Your task to perform on an android device: find snoozed emails in the gmail app Image 0: 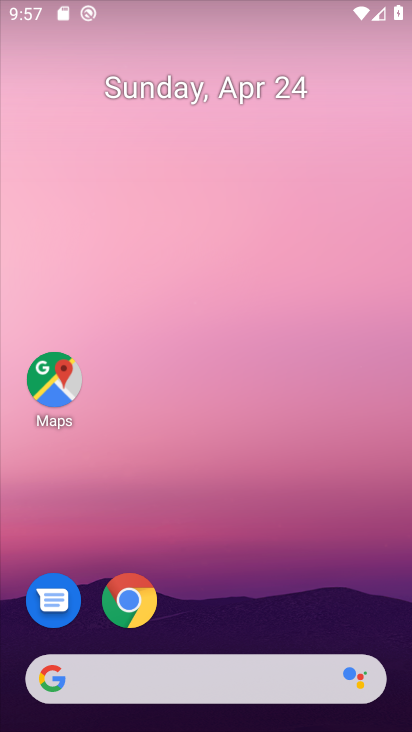
Step 0: drag from (275, 594) to (226, 2)
Your task to perform on an android device: find snoozed emails in the gmail app Image 1: 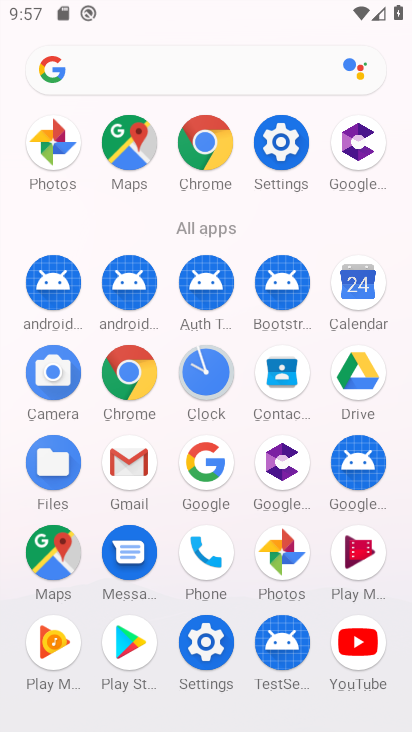
Step 1: click (131, 467)
Your task to perform on an android device: find snoozed emails in the gmail app Image 2: 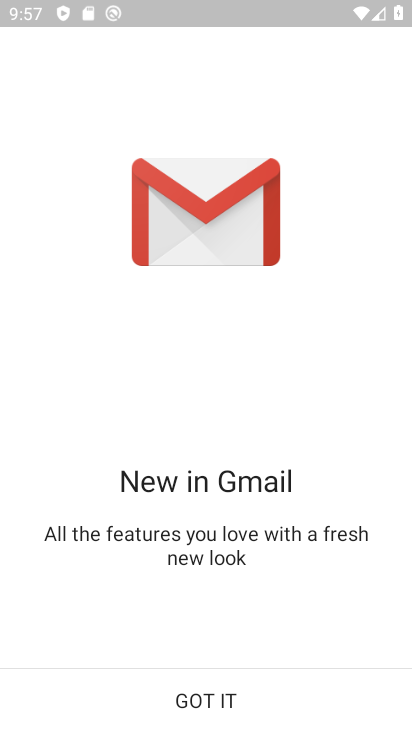
Step 2: click (202, 701)
Your task to perform on an android device: find snoozed emails in the gmail app Image 3: 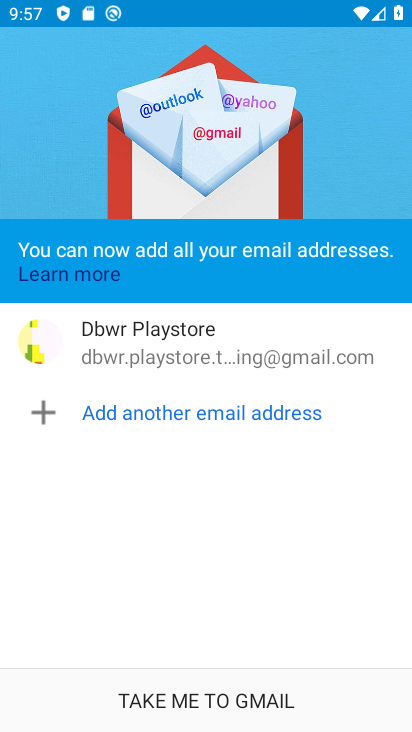
Step 3: click (202, 701)
Your task to perform on an android device: find snoozed emails in the gmail app Image 4: 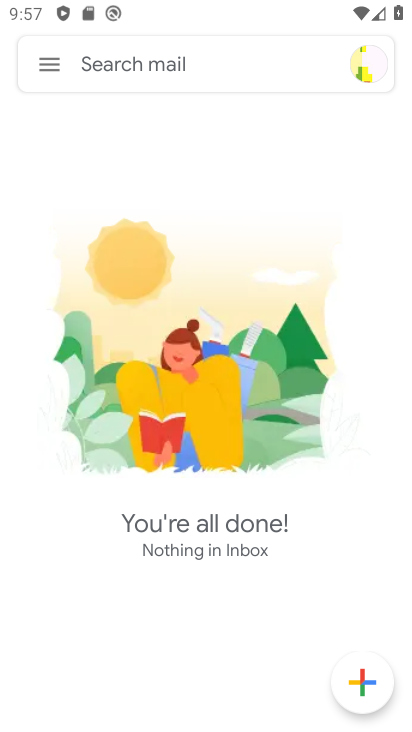
Step 4: click (49, 70)
Your task to perform on an android device: find snoozed emails in the gmail app Image 5: 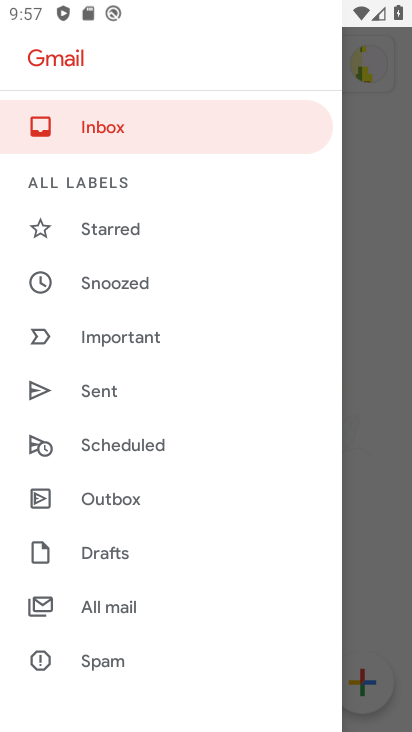
Step 5: click (124, 278)
Your task to perform on an android device: find snoozed emails in the gmail app Image 6: 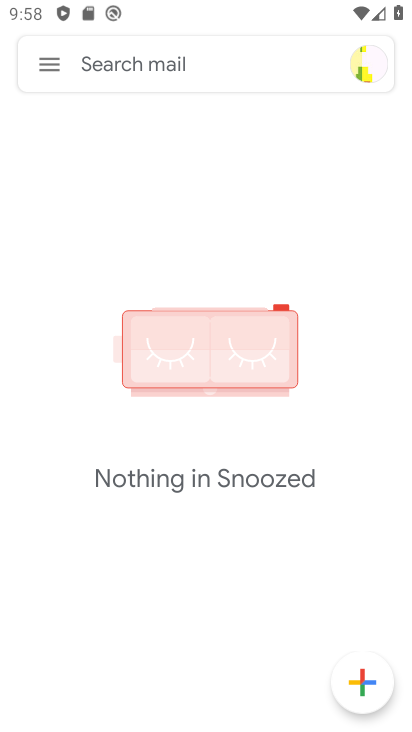
Step 6: task complete